Your task to perform on an android device: Open eBay Image 0: 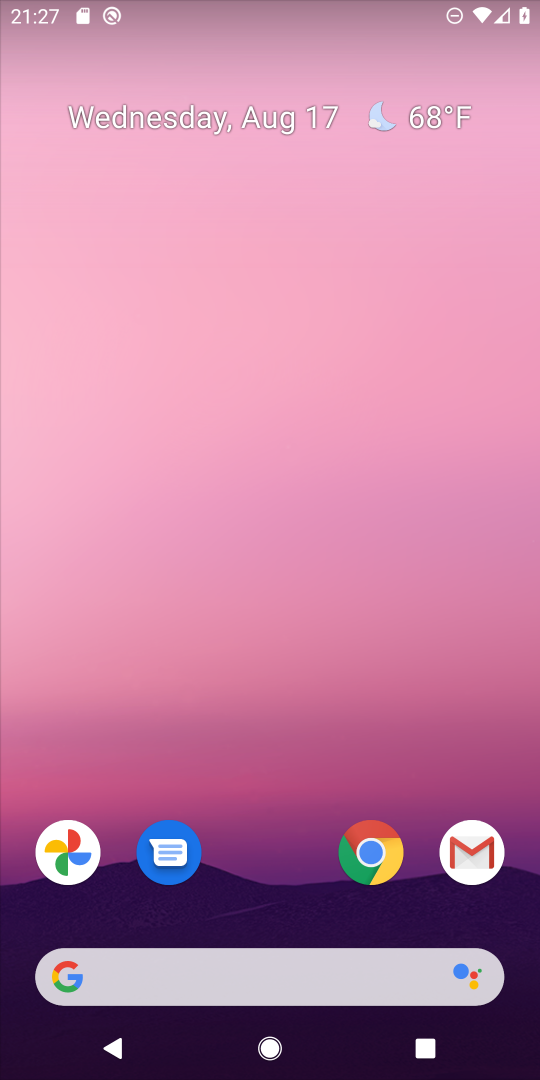
Step 0: click (369, 854)
Your task to perform on an android device: Open eBay Image 1: 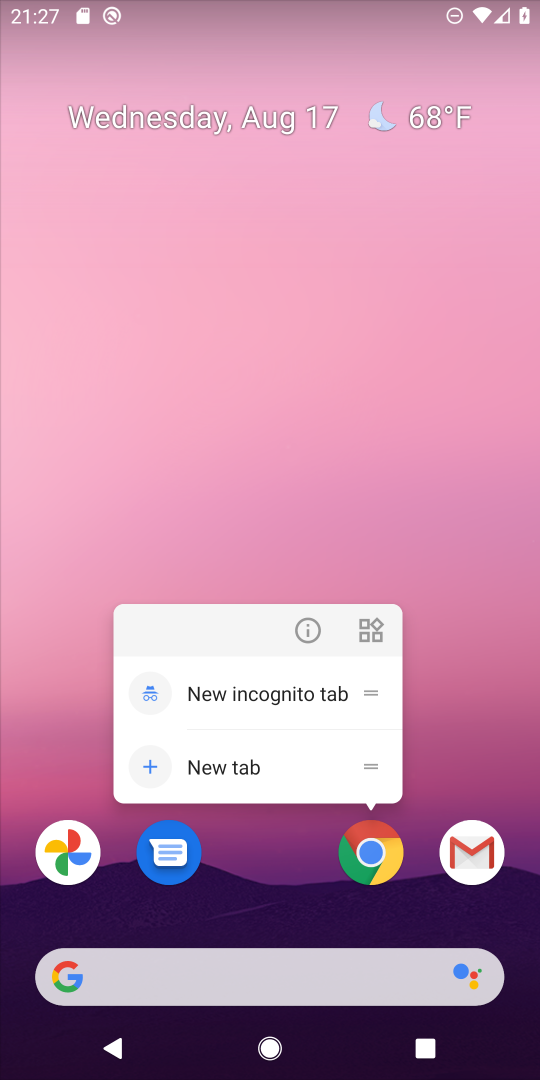
Step 1: click (383, 846)
Your task to perform on an android device: Open eBay Image 2: 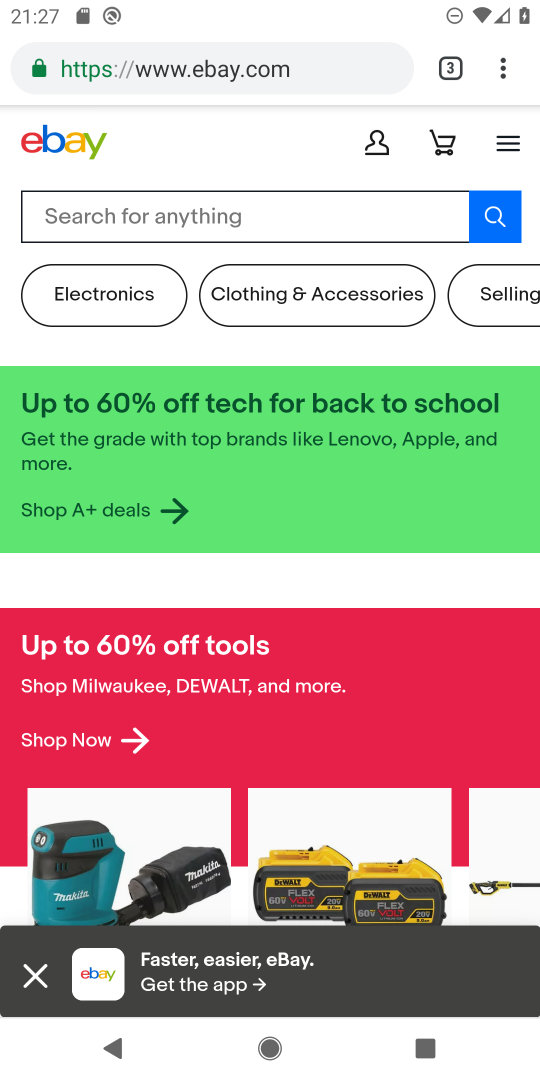
Step 2: task complete